Your task to perform on an android device: Open Maps and search for coffee Image 0: 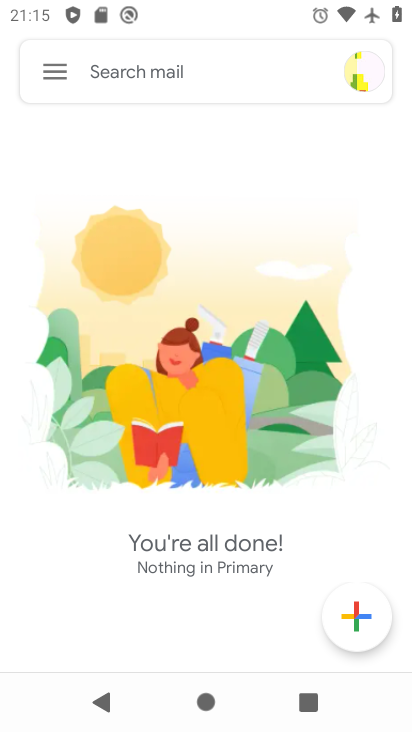
Step 0: press home button
Your task to perform on an android device: Open Maps and search for coffee Image 1: 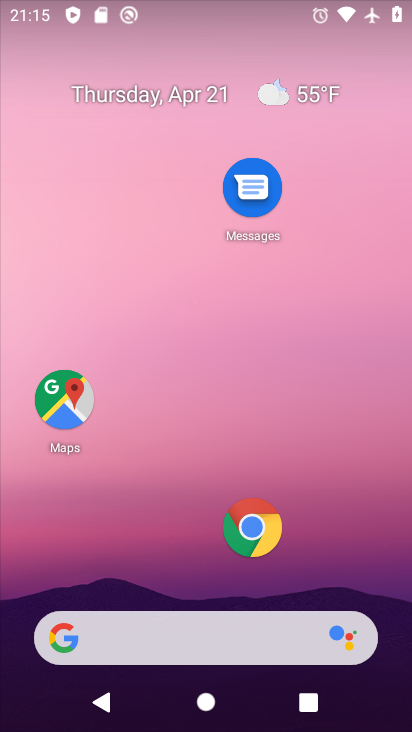
Step 1: drag from (176, 601) to (299, 127)
Your task to perform on an android device: Open Maps and search for coffee Image 2: 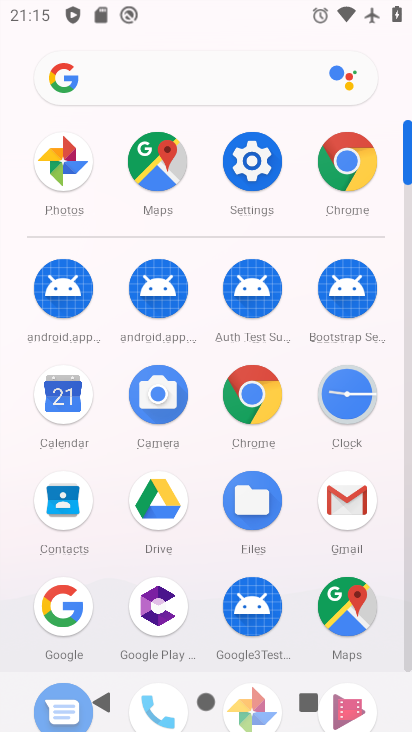
Step 2: click (161, 173)
Your task to perform on an android device: Open Maps and search for coffee Image 3: 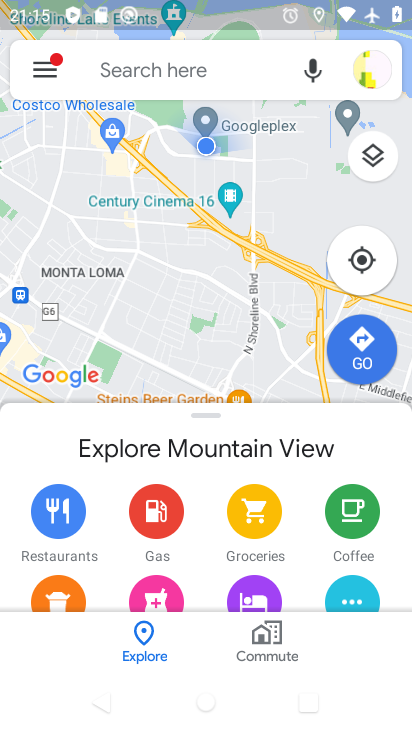
Step 3: click (152, 73)
Your task to perform on an android device: Open Maps and search for coffee Image 4: 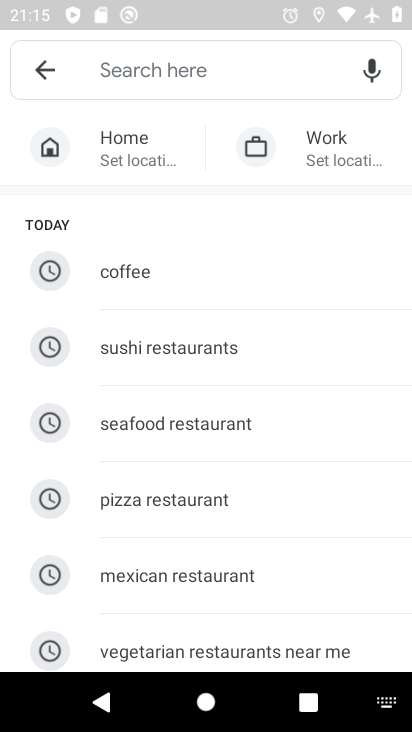
Step 4: click (139, 272)
Your task to perform on an android device: Open Maps and search for coffee Image 5: 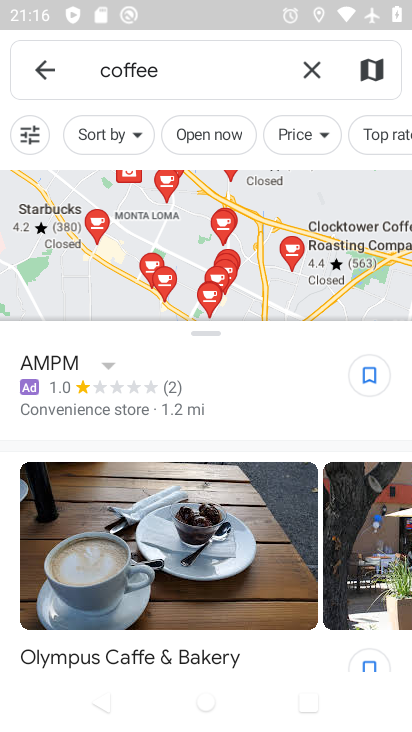
Step 5: task complete